Your task to perform on an android device: Go to Maps Image 0: 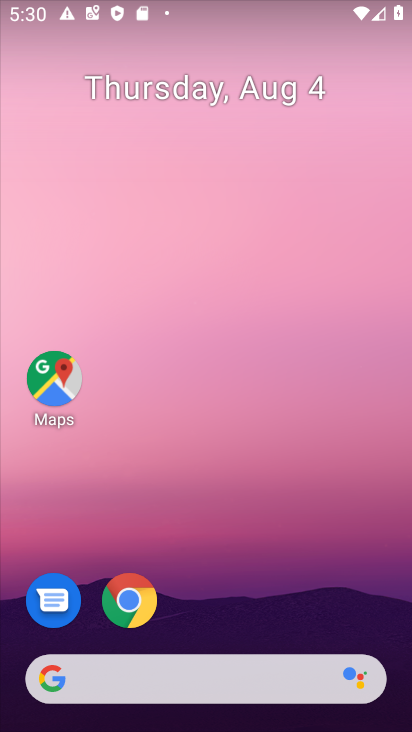
Step 0: click (33, 382)
Your task to perform on an android device: Go to Maps Image 1: 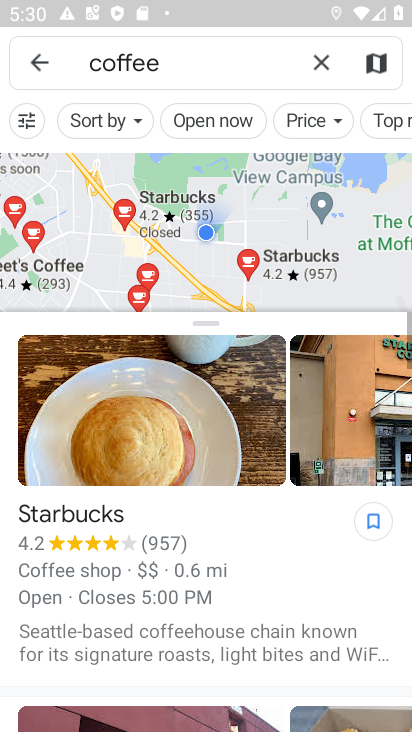
Step 1: task complete